Your task to perform on an android device: open a new tab in the chrome app Image 0: 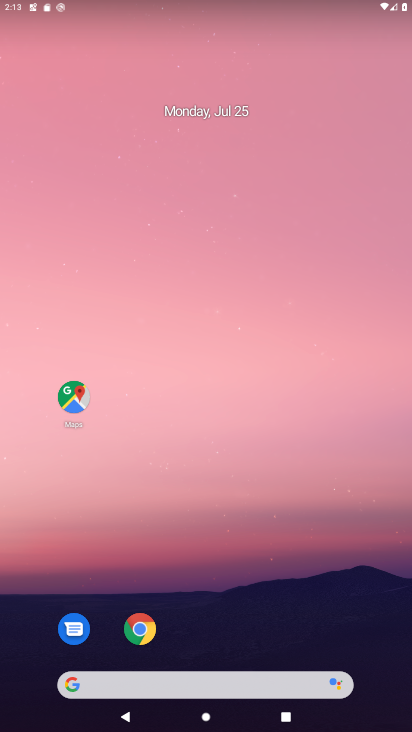
Step 0: drag from (270, 525) to (6, 40)
Your task to perform on an android device: open a new tab in the chrome app Image 1: 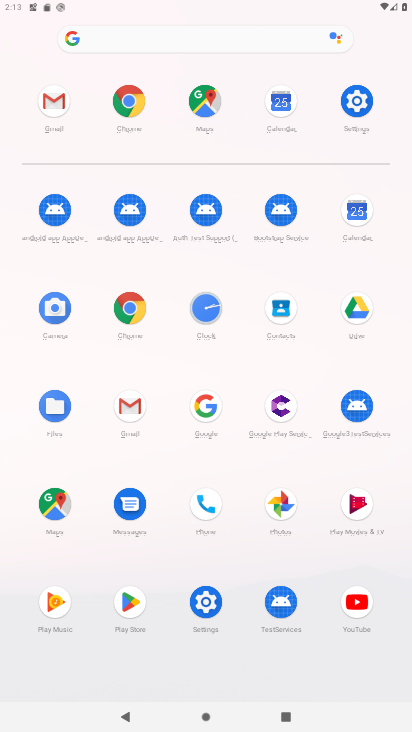
Step 1: click (137, 109)
Your task to perform on an android device: open a new tab in the chrome app Image 2: 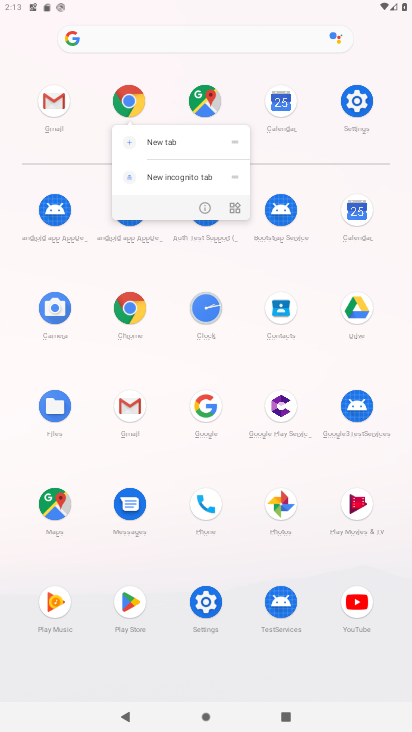
Step 2: click (132, 103)
Your task to perform on an android device: open a new tab in the chrome app Image 3: 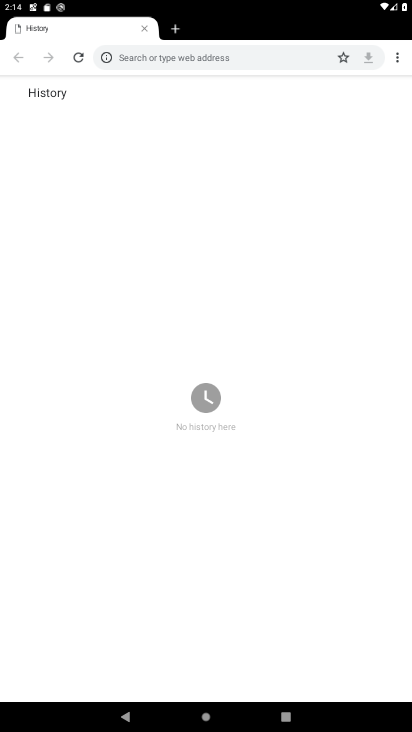
Step 3: task complete